Your task to perform on an android device: toggle sleep mode Image 0: 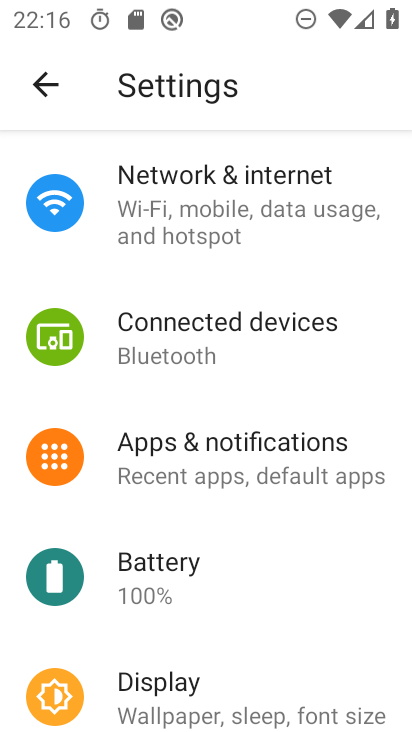
Step 0: drag from (271, 482) to (296, 272)
Your task to perform on an android device: toggle sleep mode Image 1: 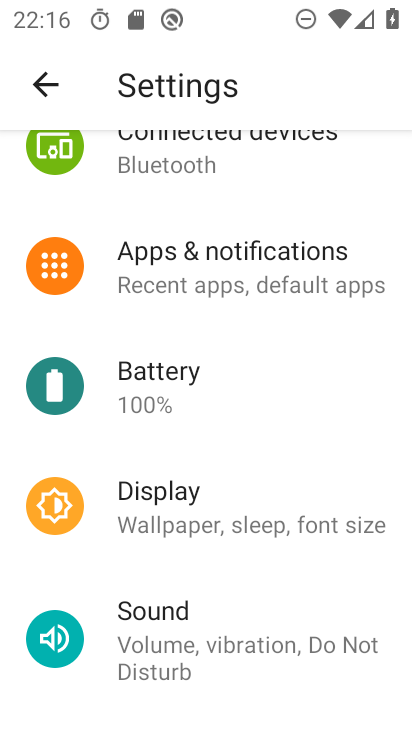
Step 1: click (242, 502)
Your task to perform on an android device: toggle sleep mode Image 2: 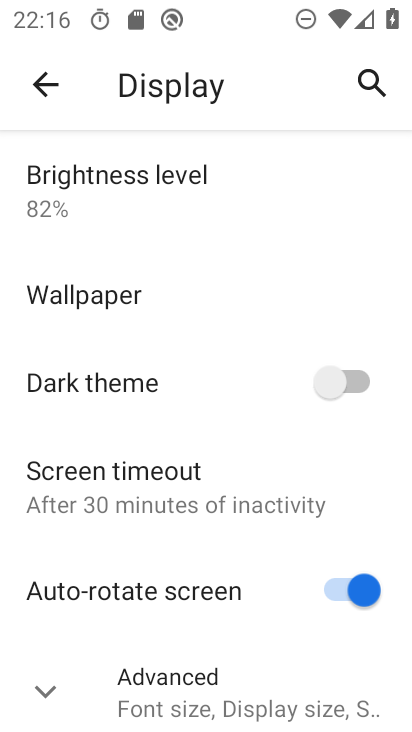
Step 2: click (151, 474)
Your task to perform on an android device: toggle sleep mode Image 3: 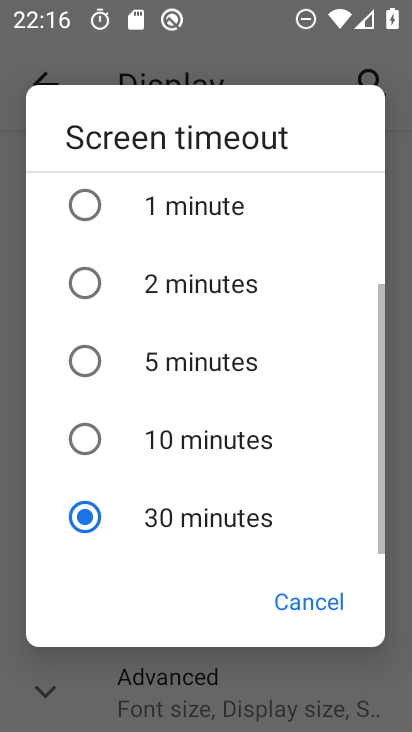
Step 3: click (87, 366)
Your task to perform on an android device: toggle sleep mode Image 4: 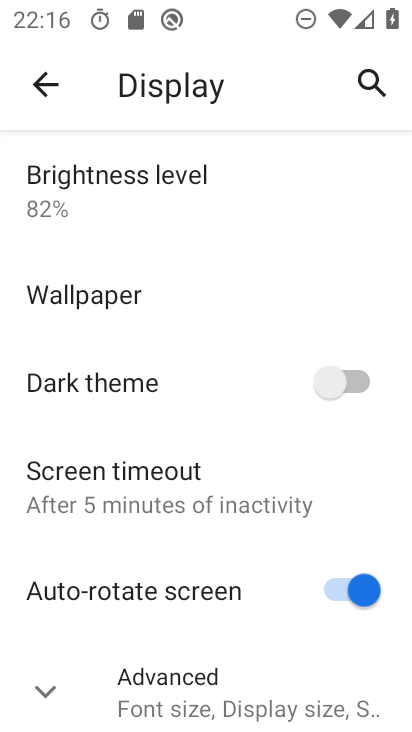
Step 4: task complete